Your task to perform on an android device: open app "eBay: The shopping marketplace" (install if not already installed) Image 0: 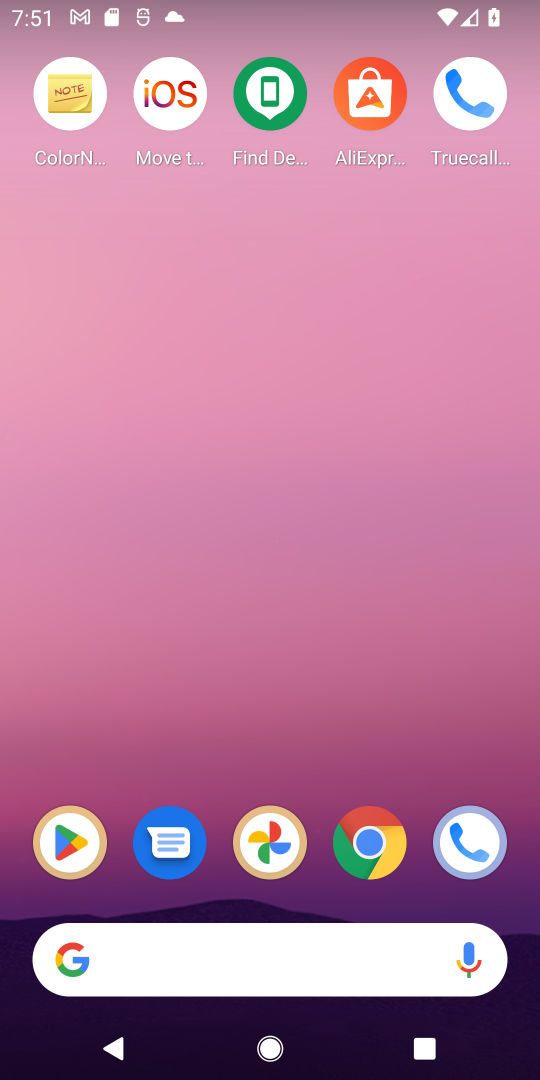
Step 0: click (81, 839)
Your task to perform on an android device: open app "eBay: The shopping marketplace" (install if not already installed) Image 1: 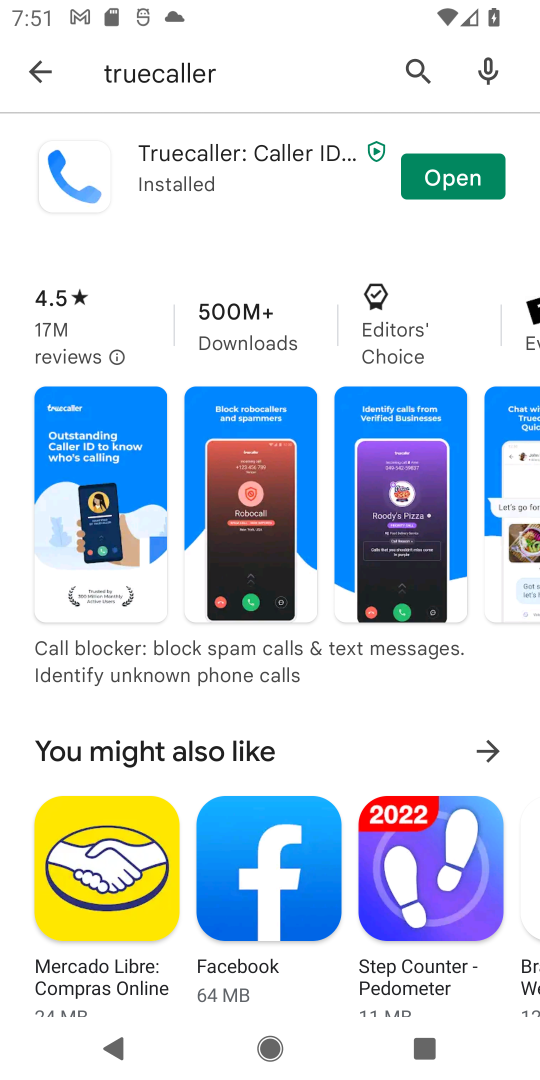
Step 1: click (235, 78)
Your task to perform on an android device: open app "eBay: The shopping marketplace" (install if not already installed) Image 2: 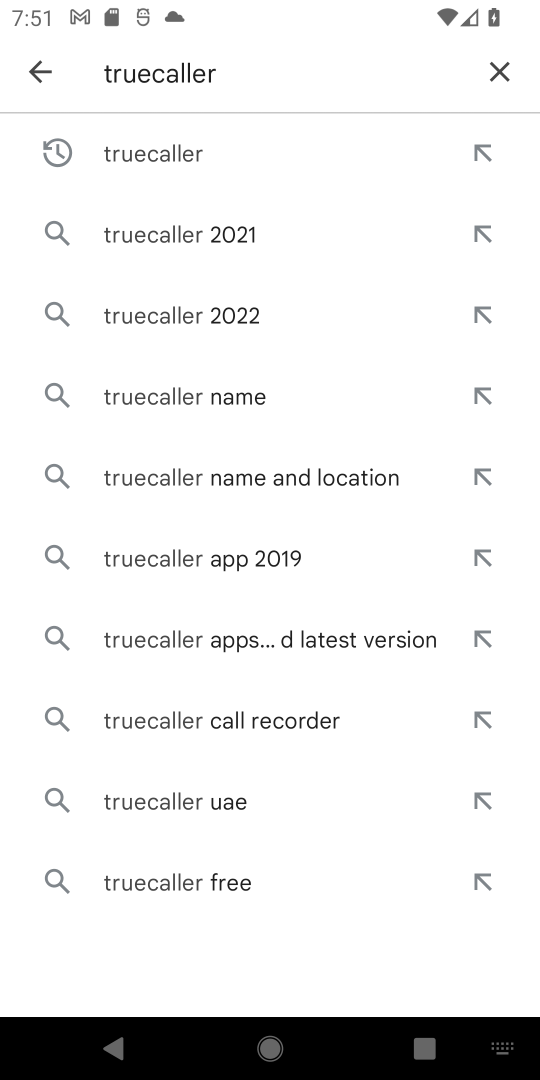
Step 2: click (499, 83)
Your task to perform on an android device: open app "eBay: The shopping marketplace" (install if not already installed) Image 3: 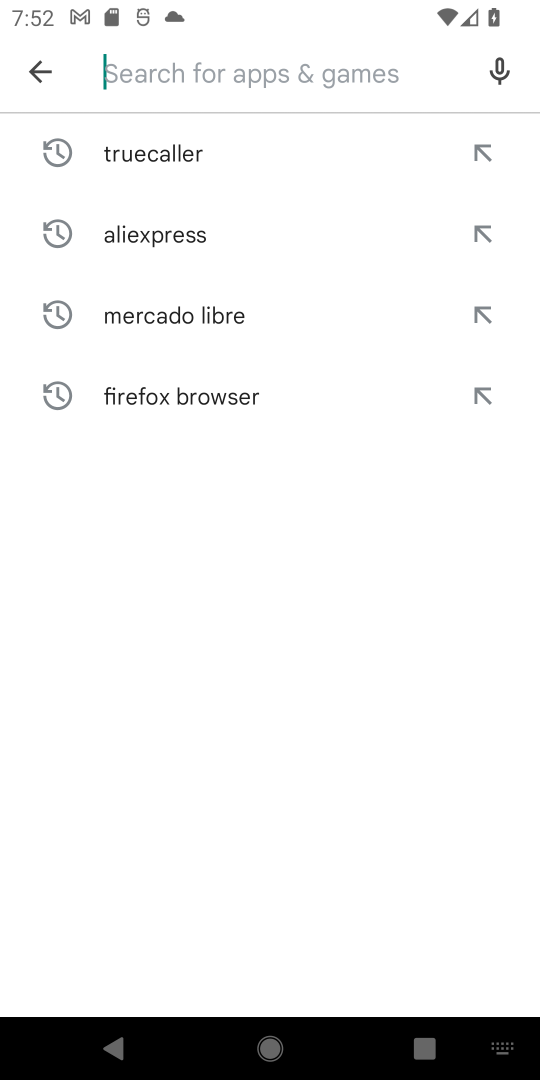
Step 3: type "eBay"
Your task to perform on an android device: open app "eBay: The shopping marketplace" (install if not already installed) Image 4: 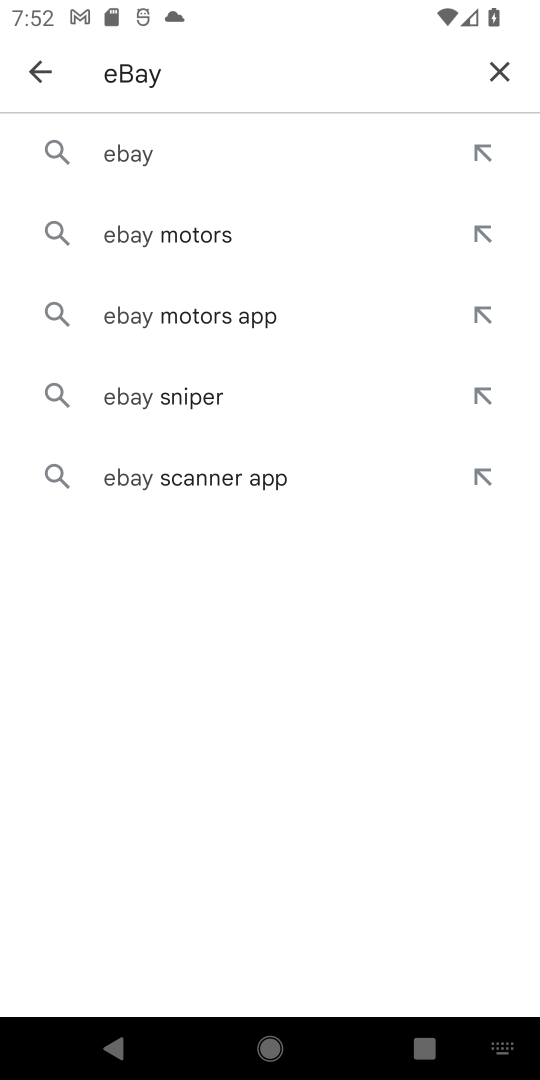
Step 4: click (180, 158)
Your task to perform on an android device: open app "eBay: The shopping marketplace" (install if not already installed) Image 5: 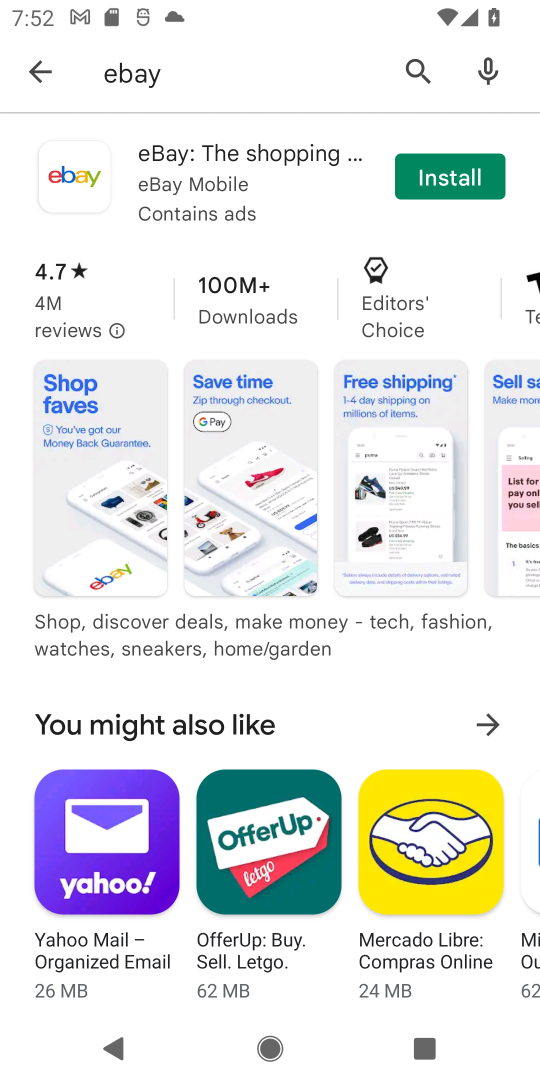
Step 5: click (447, 187)
Your task to perform on an android device: open app "eBay: The shopping marketplace" (install if not already installed) Image 6: 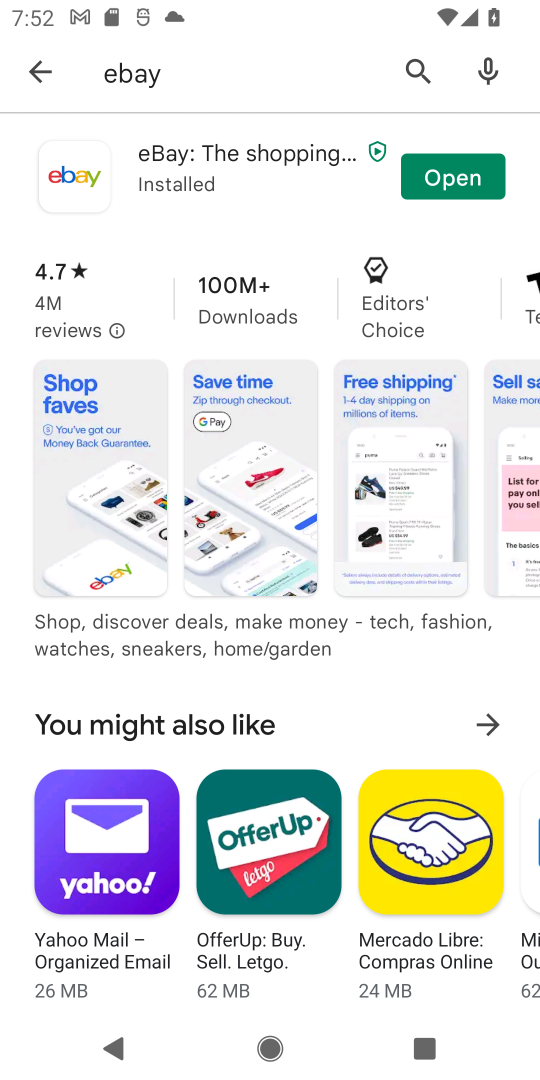
Step 6: click (468, 183)
Your task to perform on an android device: open app "eBay: The shopping marketplace" (install if not already installed) Image 7: 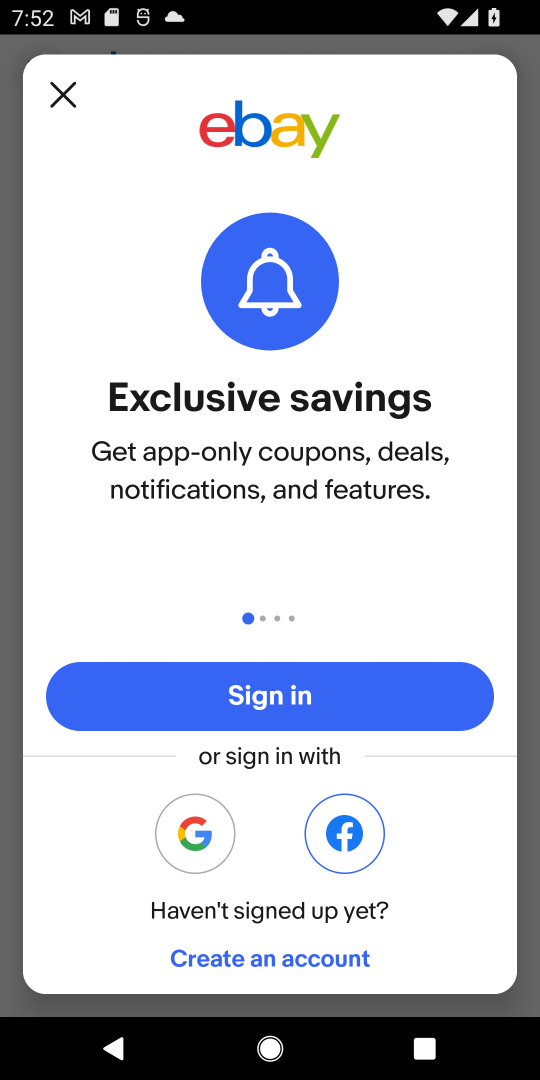
Step 7: click (201, 844)
Your task to perform on an android device: open app "eBay: The shopping marketplace" (install if not already installed) Image 8: 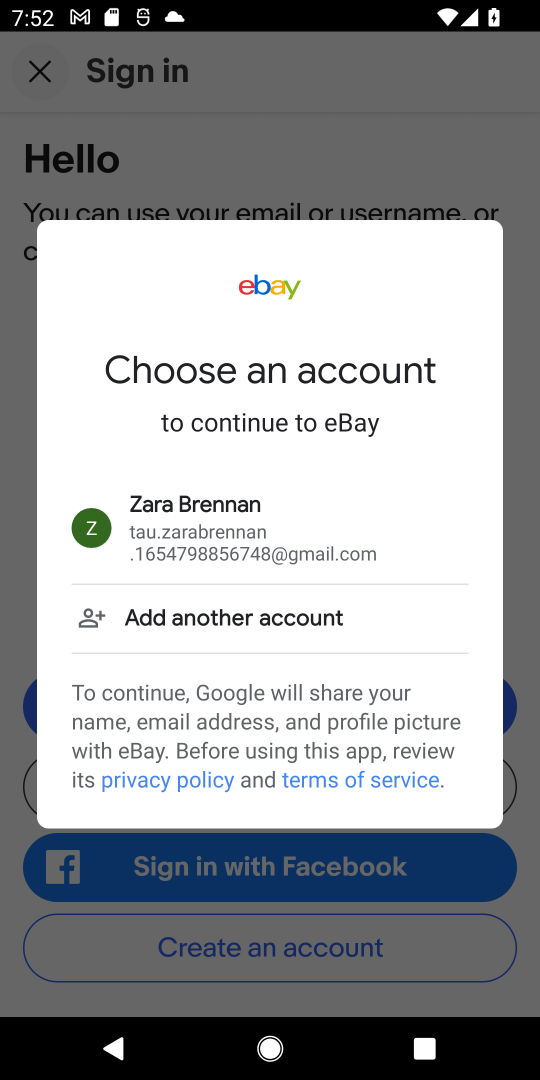
Step 8: click (245, 543)
Your task to perform on an android device: open app "eBay: The shopping marketplace" (install if not already installed) Image 9: 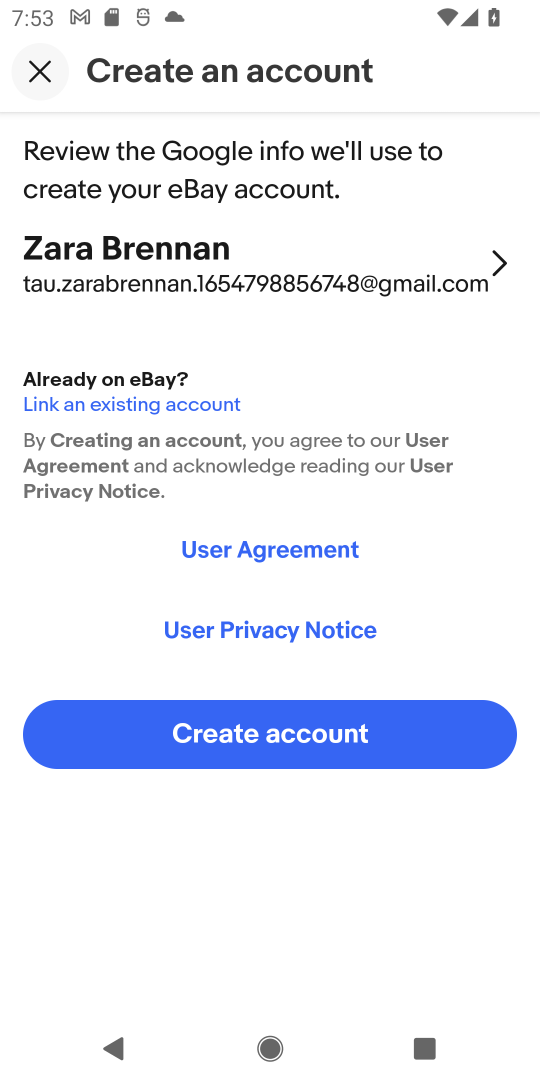
Step 9: task complete